Your task to perform on an android device: Go to wifi settings Image 0: 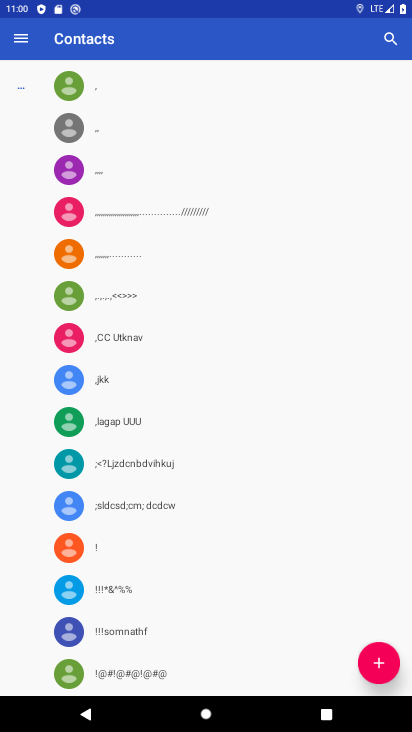
Step 0: press home button
Your task to perform on an android device: Go to wifi settings Image 1: 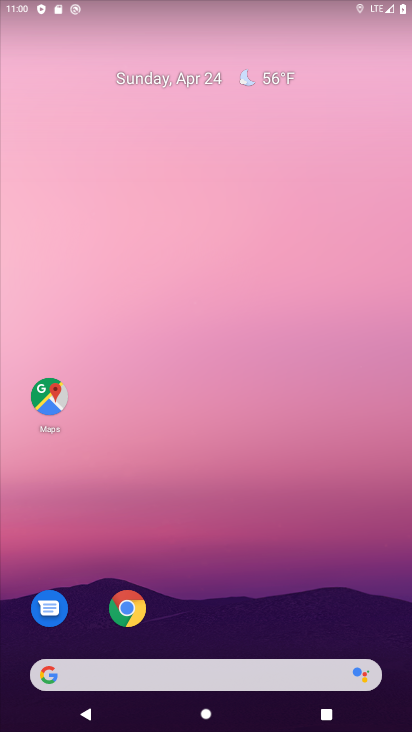
Step 1: drag from (191, 645) to (226, 7)
Your task to perform on an android device: Go to wifi settings Image 2: 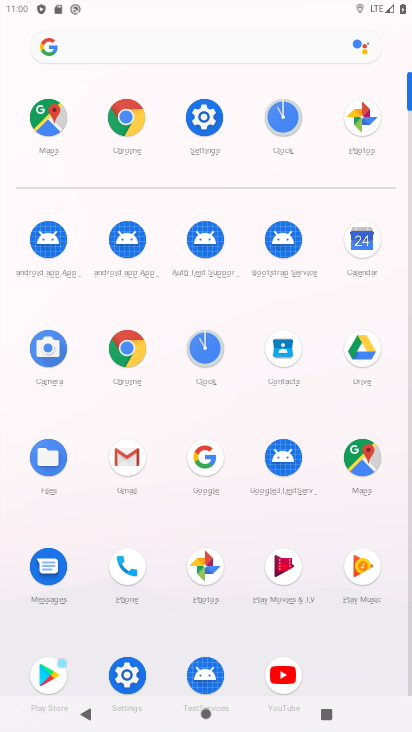
Step 2: click (208, 123)
Your task to perform on an android device: Go to wifi settings Image 3: 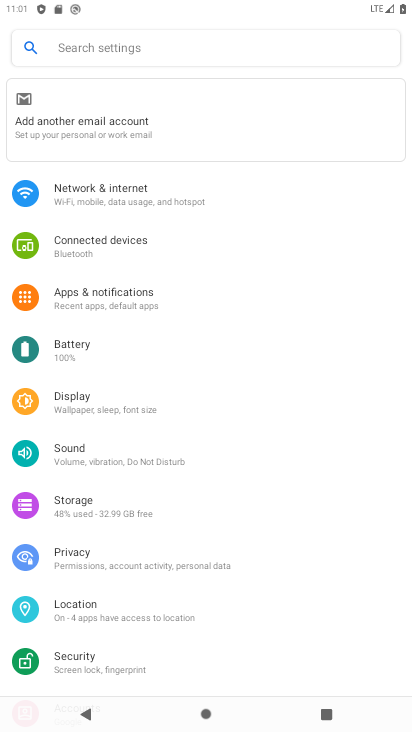
Step 3: click (50, 182)
Your task to perform on an android device: Go to wifi settings Image 4: 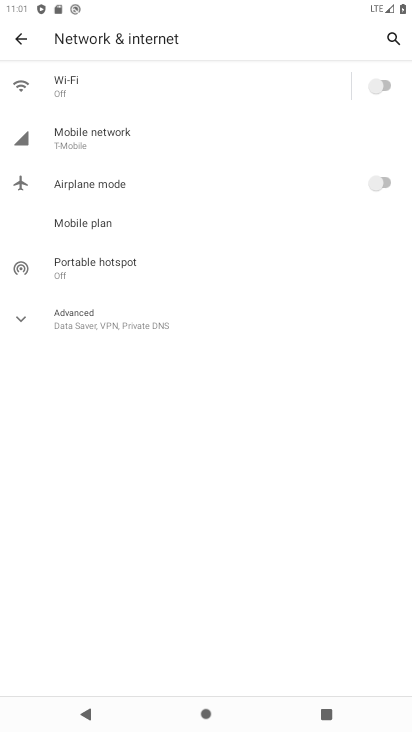
Step 4: click (133, 83)
Your task to perform on an android device: Go to wifi settings Image 5: 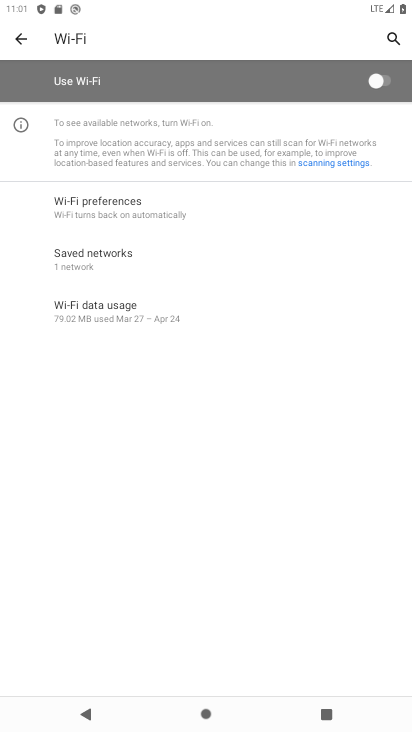
Step 5: task complete